Your task to perform on an android device: check android version Image 0: 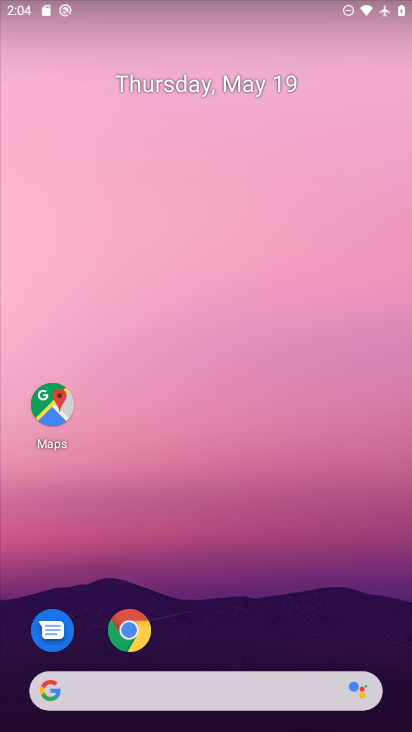
Step 0: drag from (181, 662) to (150, 40)
Your task to perform on an android device: check android version Image 1: 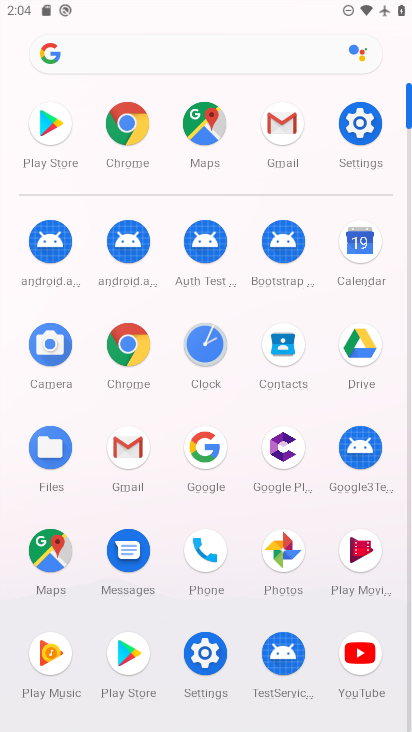
Step 1: click (364, 127)
Your task to perform on an android device: check android version Image 2: 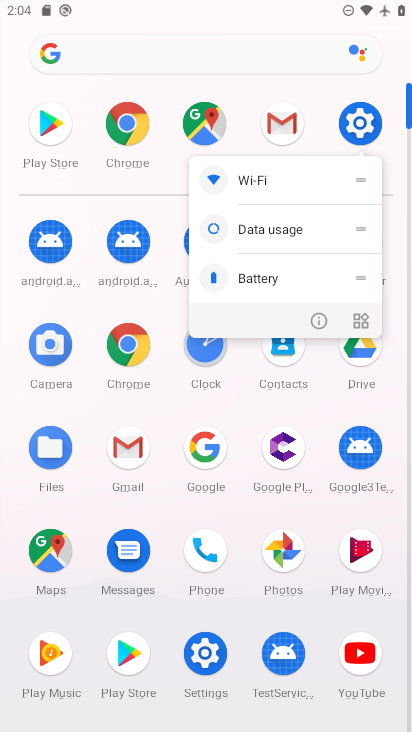
Step 2: click (366, 107)
Your task to perform on an android device: check android version Image 3: 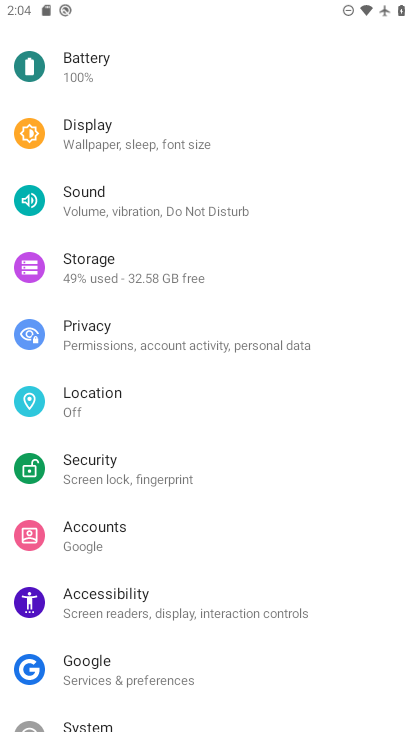
Step 3: drag from (210, 629) to (131, 32)
Your task to perform on an android device: check android version Image 4: 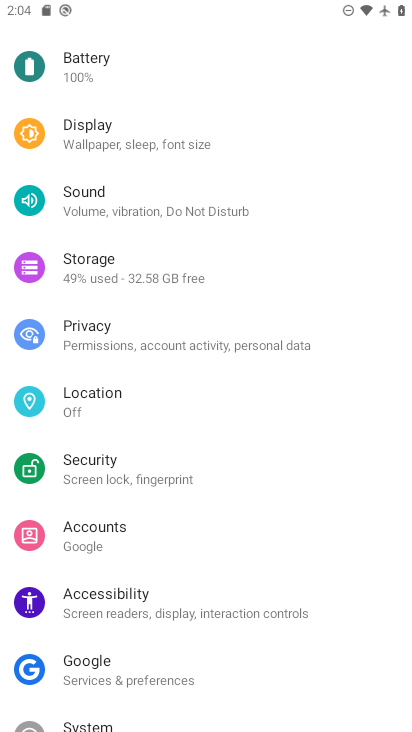
Step 4: drag from (171, 621) to (126, 105)
Your task to perform on an android device: check android version Image 5: 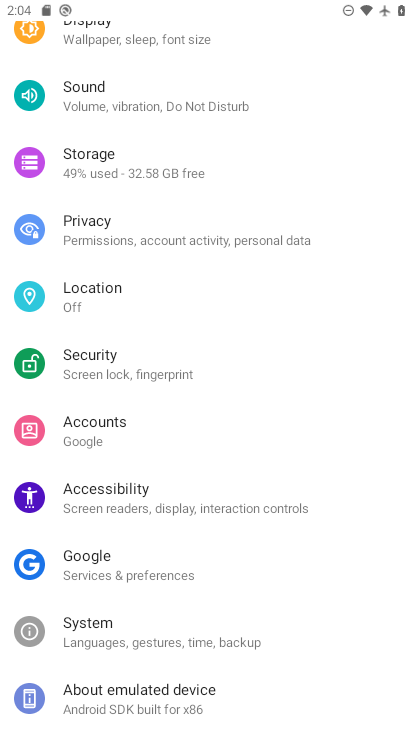
Step 5: click (146, 698)
Your task to perform on an android device: check android version Image 6: 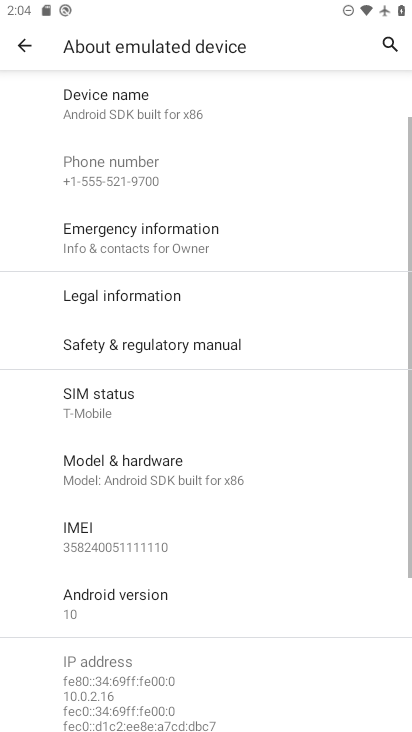
Step 6: click (132, 596)
Your task to perform on an android device: check android version Image 7: 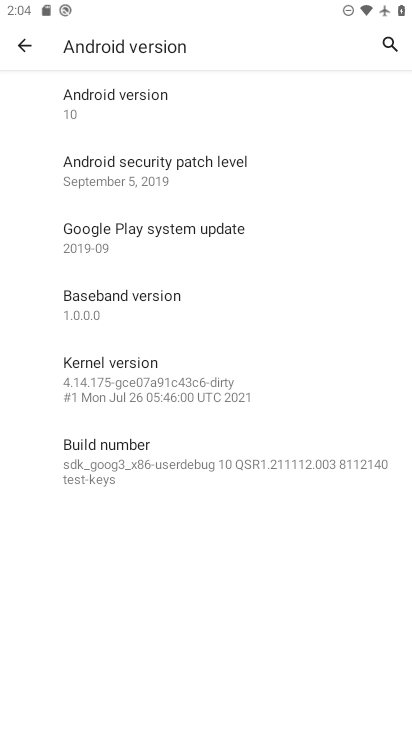
Step 7: click (134, 105)
Your task to perform on an android device: check android version Image 8: 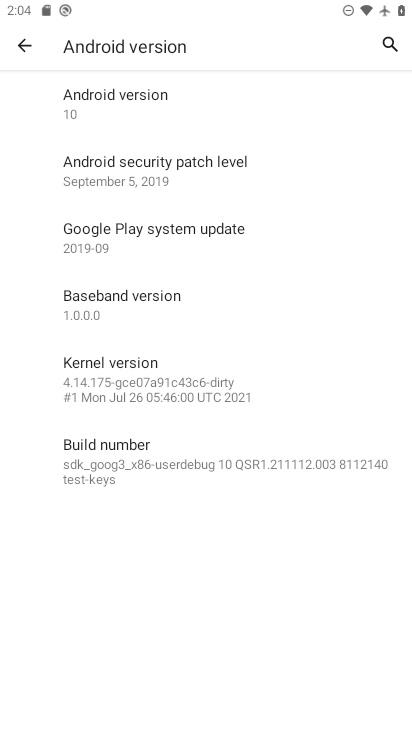
Step 8: task complete